Your task to perform on an android device: see creations saved in the google photos Image 0: 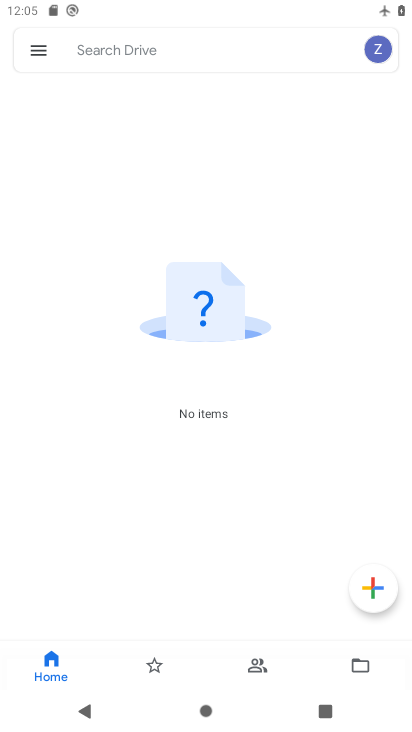
Step 0: press home button
Your task to perform on an android device: see creations saved in the google photos Image 1: 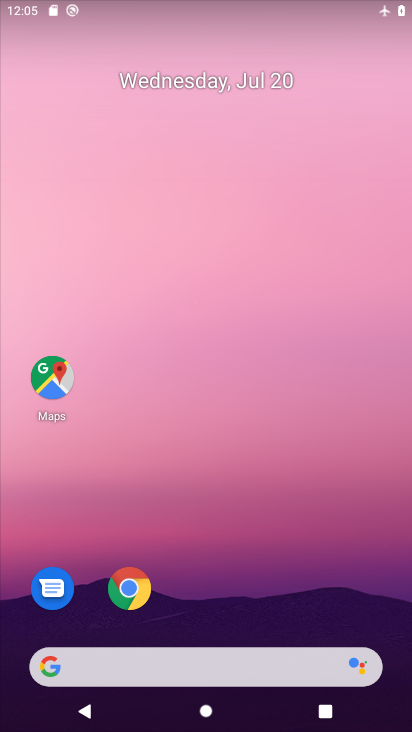
Step 1: drag from (270, 581) to (261, 202)
Your task to perform on an android device: see creations saved in the google photos Image 2: 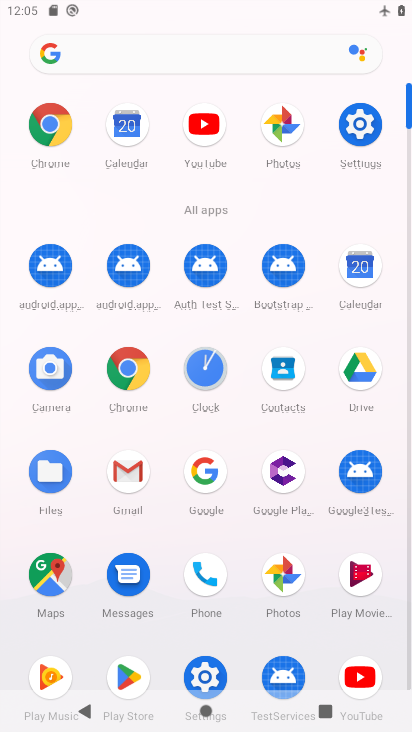
Step 2: click (293, 569)
Your task to perform on an android device: see creations saved in the google photos Image 3: 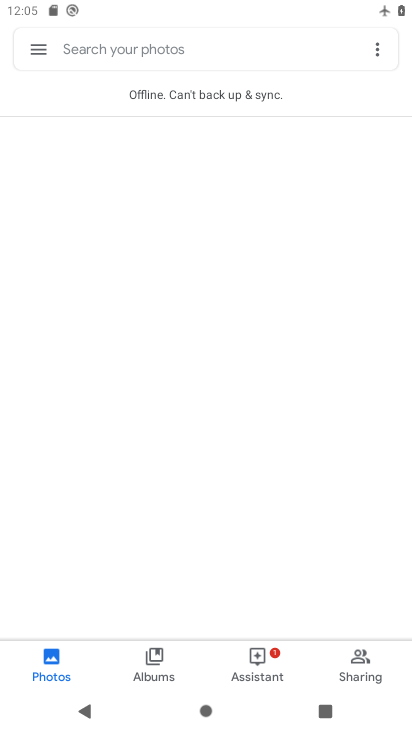
Step 3: click (150, 655)
Your task to perform on an android device: see creations saved in the google photos Image 4: 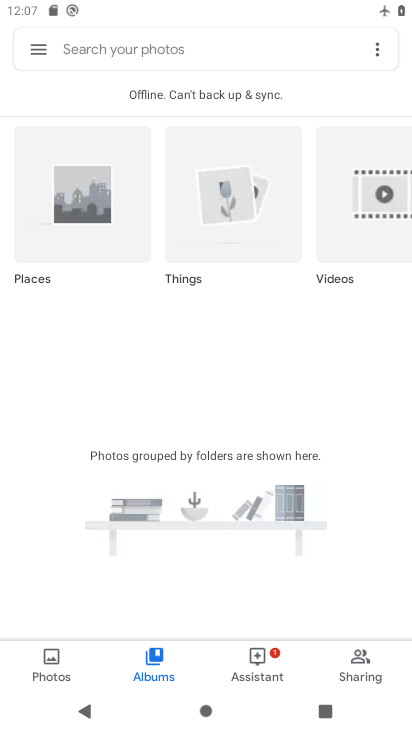
Step 4: task complete